Your task to perform on an android device: Clear the shopping cart on costco. Image 0: 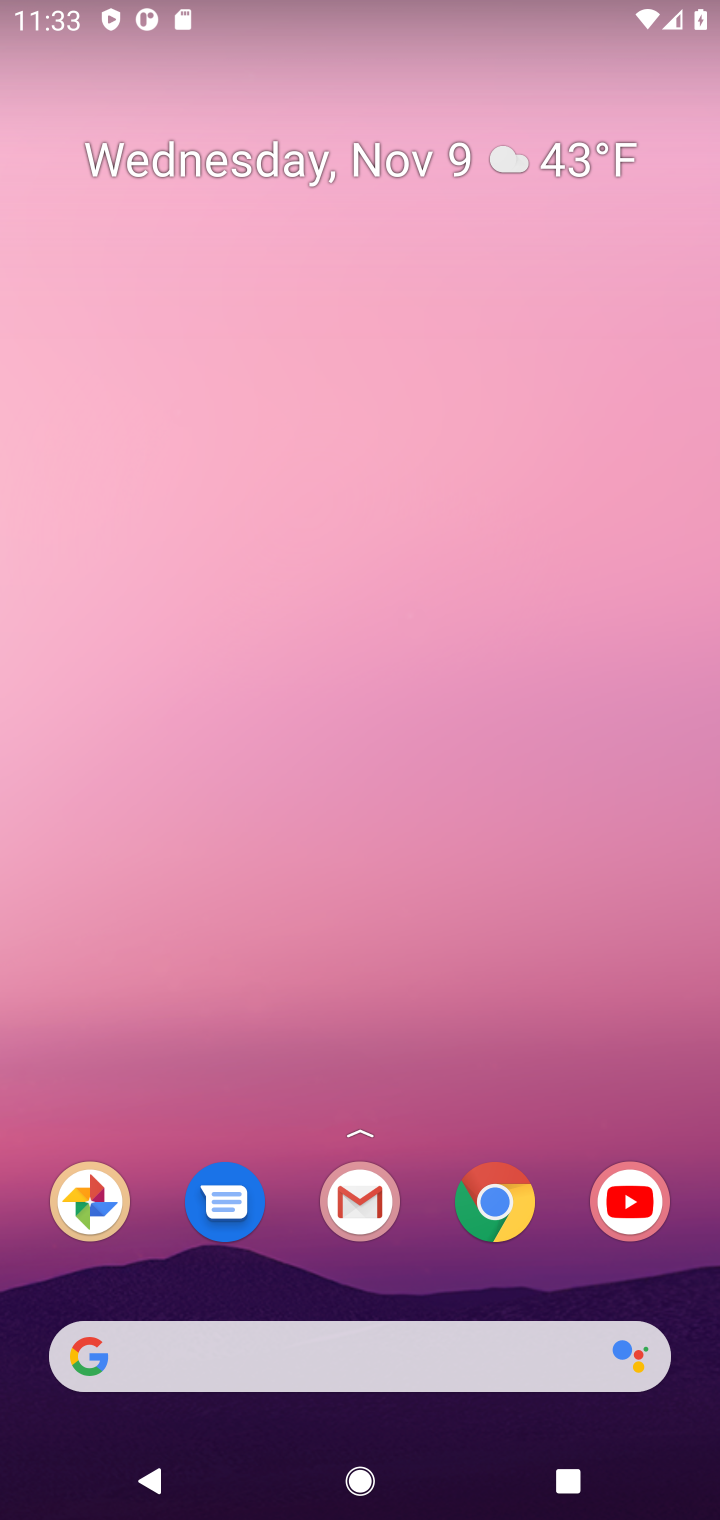
Step 0: click (495, 1207)
Your task to perform on an android device: Clear the shopping cart on costco. Image 1: 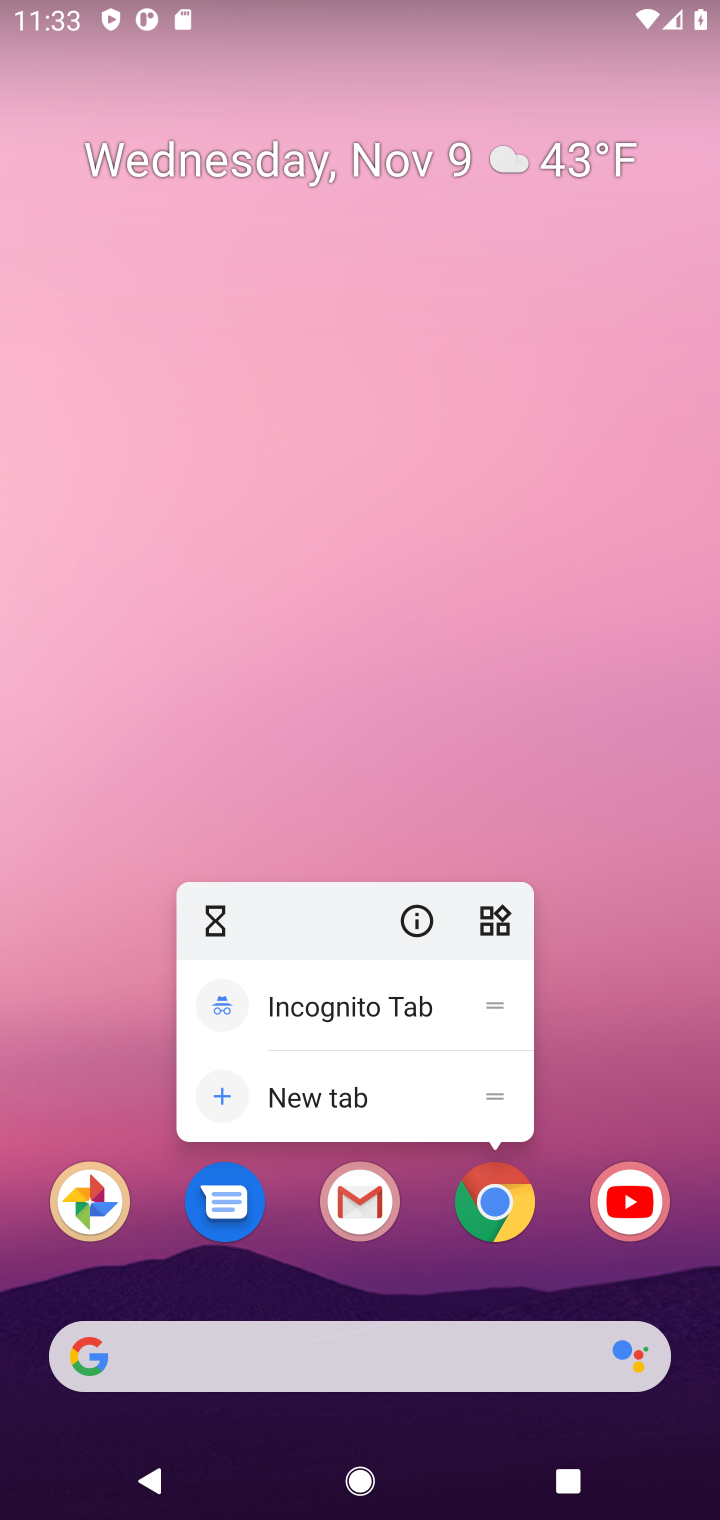
Step 1: click (495, 1207)
Your task to perform on an android device: Clear the shopping cart on costco. Image 2: 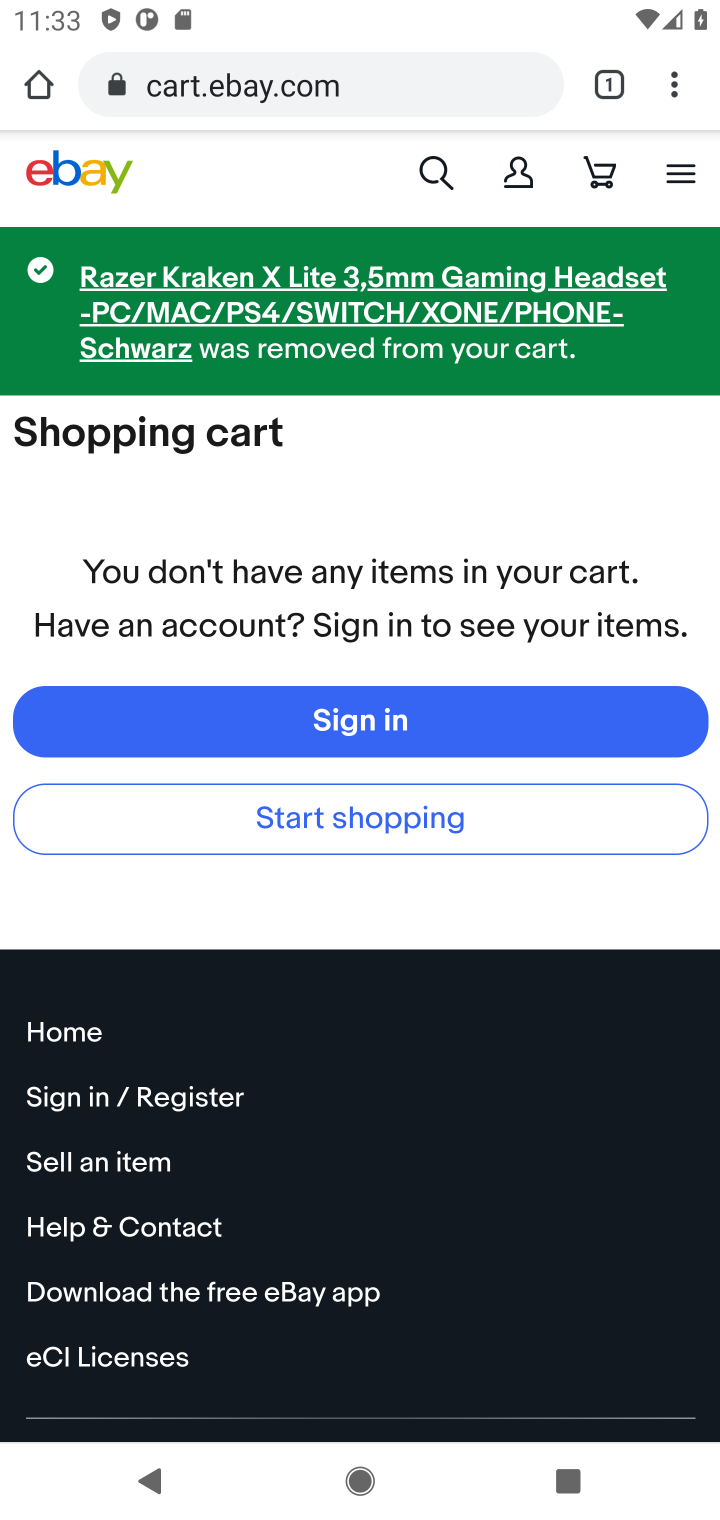
Step 2: click (481, 72)
Your task to perform on an android device: Clear the shopping cart on costco. Image 3: 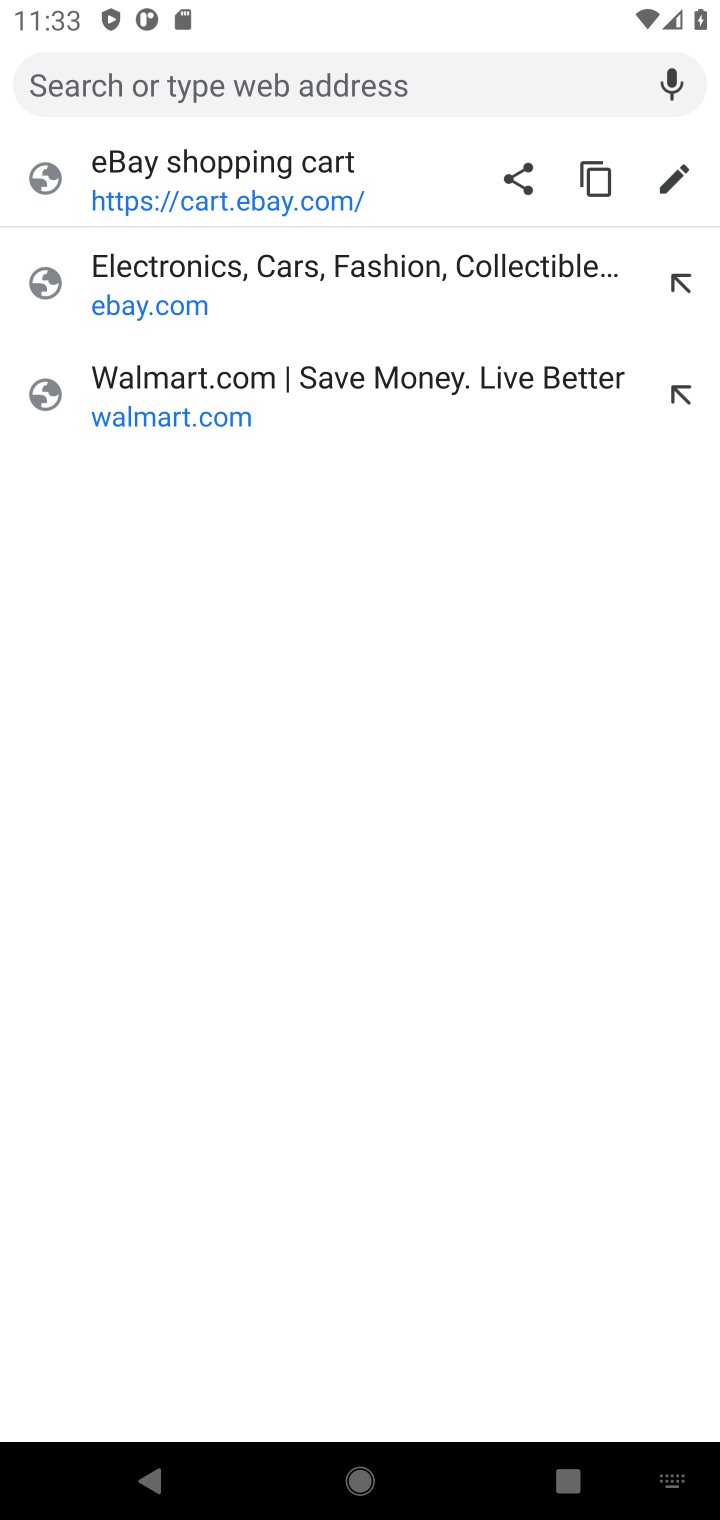
Step 3: type "costco"
Your task to perform on an android device: Clear the shopping cart on costco. Image 4: 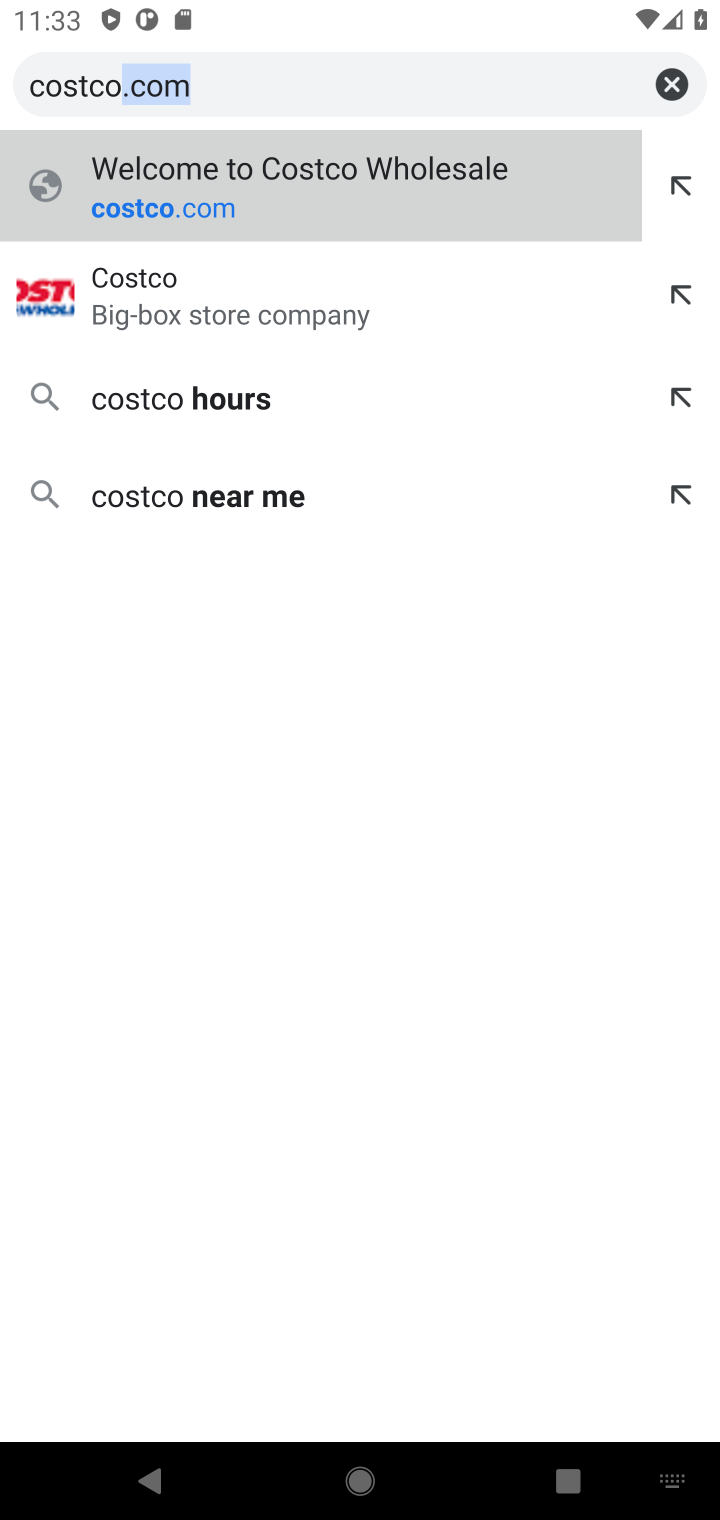
Step 4: press enter
Your task to perform on an android device: Clear the shopping cart on costco. Image 5: 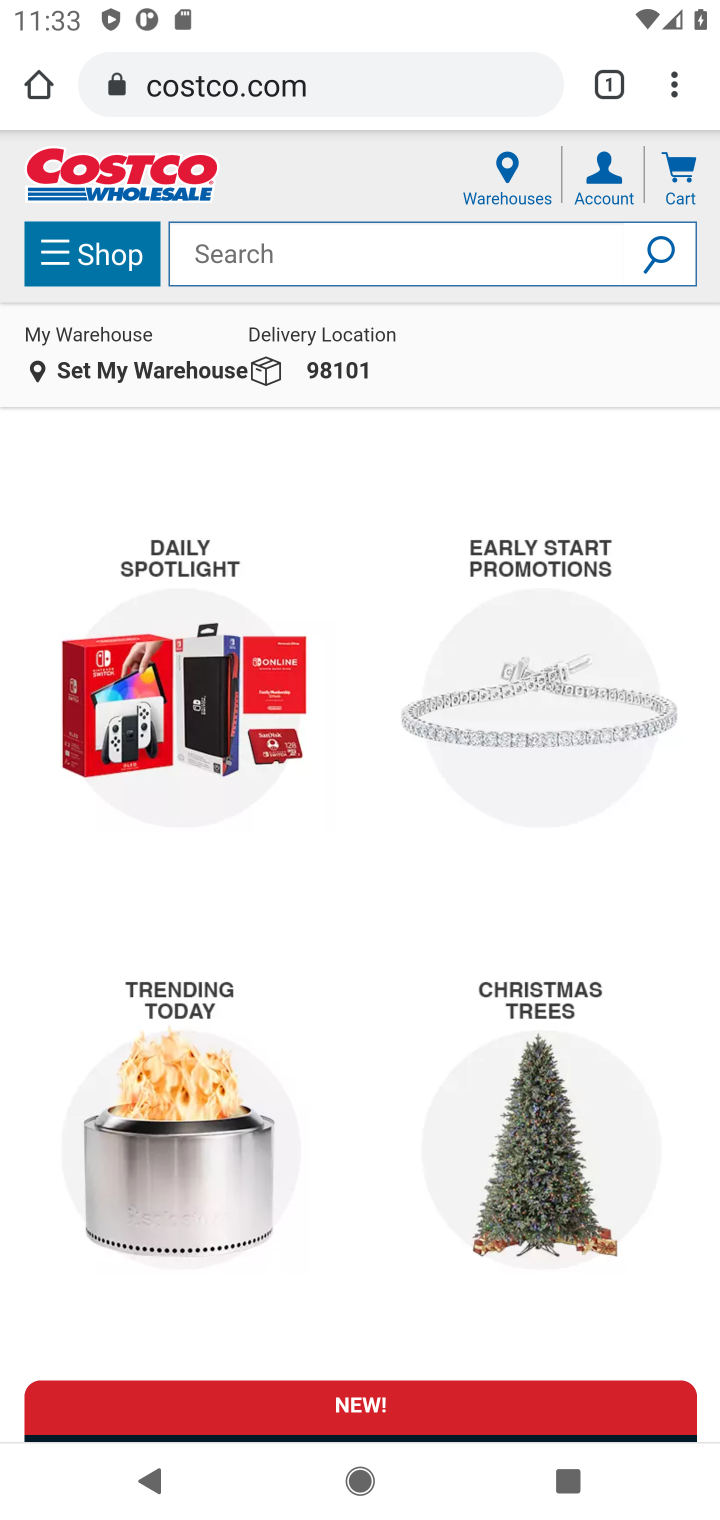
Step 5: click (684, 170)
Your task to perform on an android device: Clear the shopping cart on costco. Image 6: 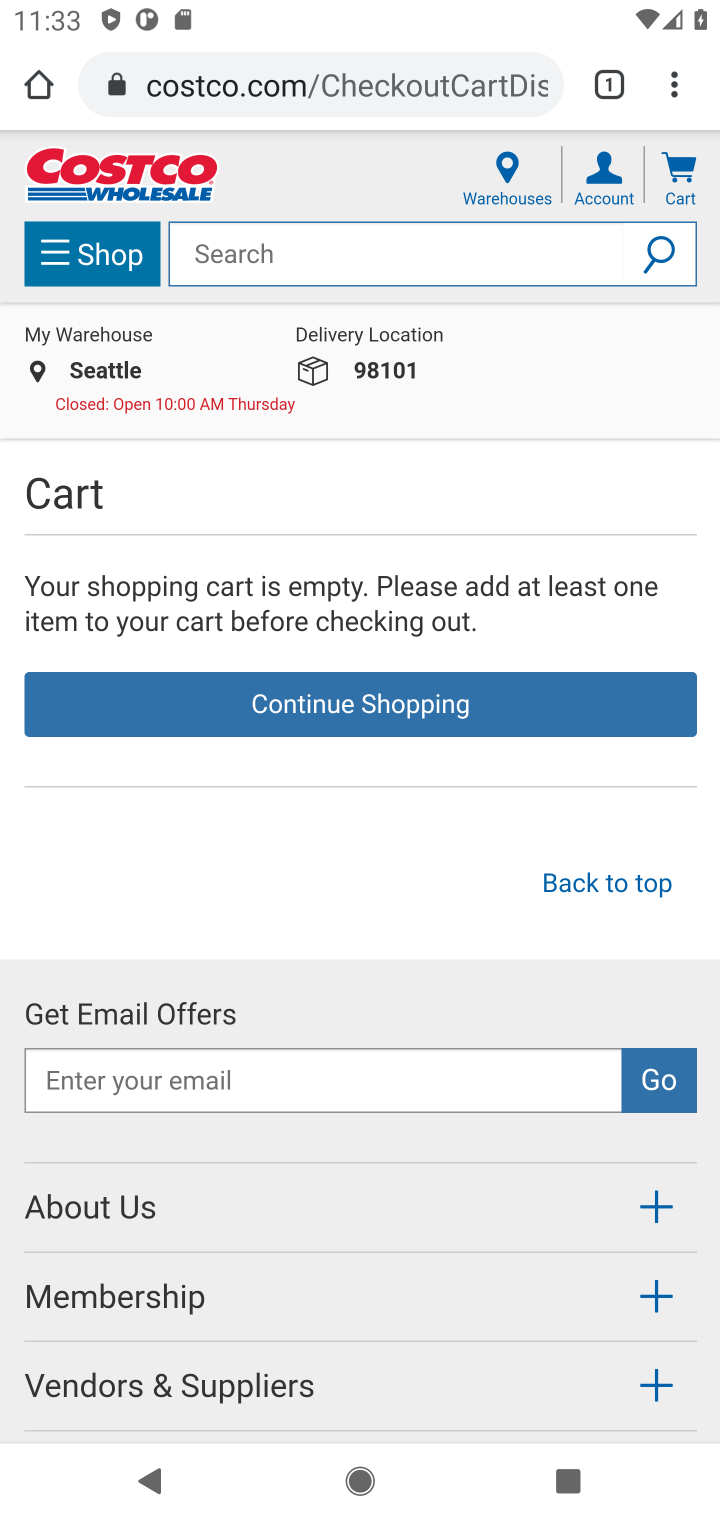
Step 6: task complete